Your task to perform on an android device: Open my contact list Image 0: 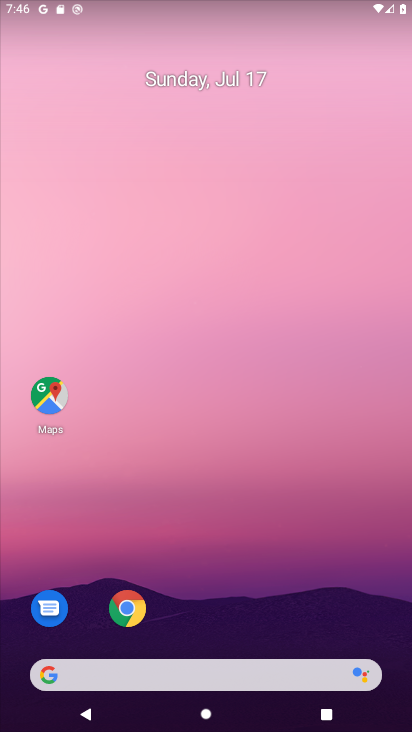
Step 0: drag from (200, 641) to (200, 344)
Your task to perform on an android device: Open my contact list Image 1: 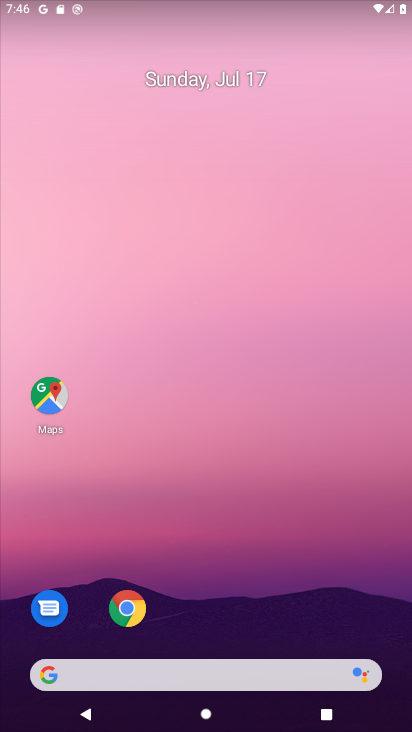
Step 1: drag from (161, 629) to (179, 142)
Your task to perform on an android device: Open my contact list Image 2: 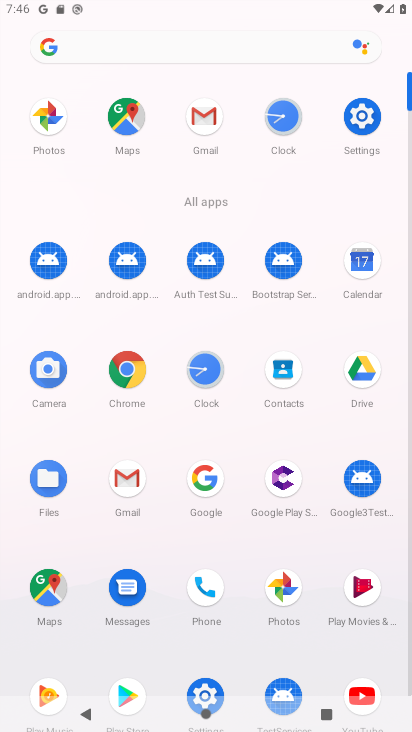
Step 2: click (264, 387)
Your task to perform on an android device: Open my contact list Image 3: 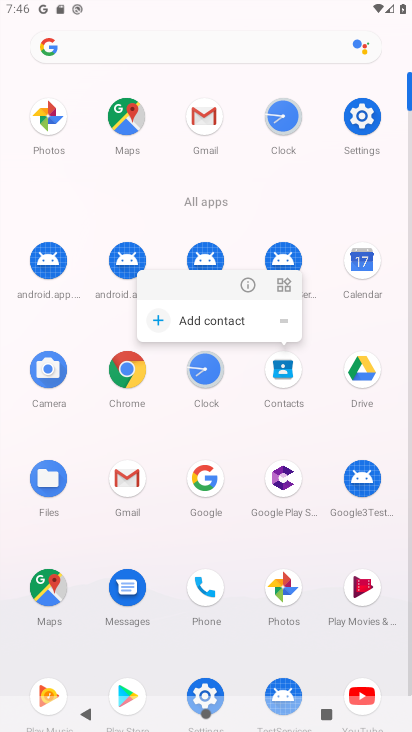
Step 3: click (277, 367)
Your task to perform on an android device: Open my contact list Image 4: 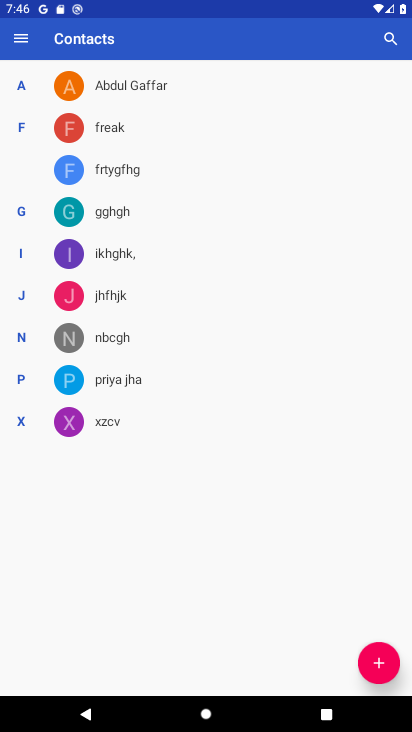
Step 4: task complete